Your task to perform on an android device: change alarm snooze length Image 0: 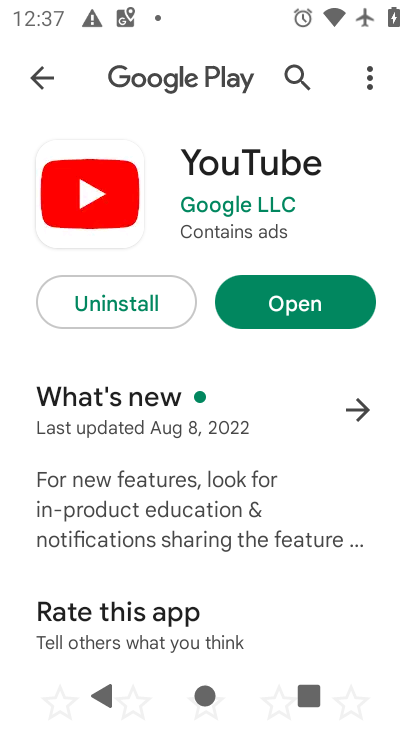
Step 0: press back button
Your task to perform on an android device: change alarm snooze length Image 1: 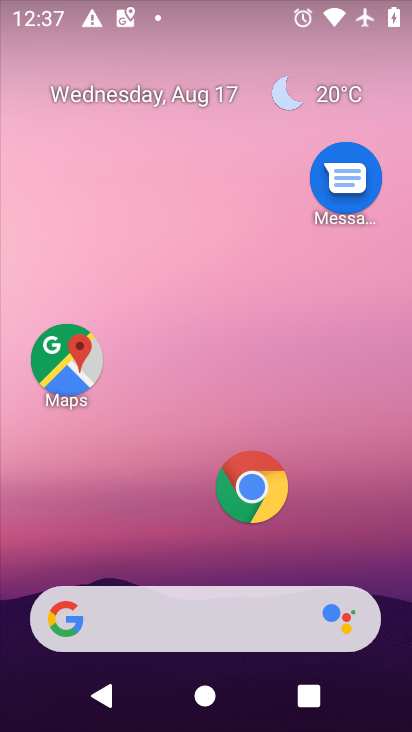
Step 1: drag from (148, 525) to (270, 24)
Your task to perform on an android device: change alarm snooze length Image 2: 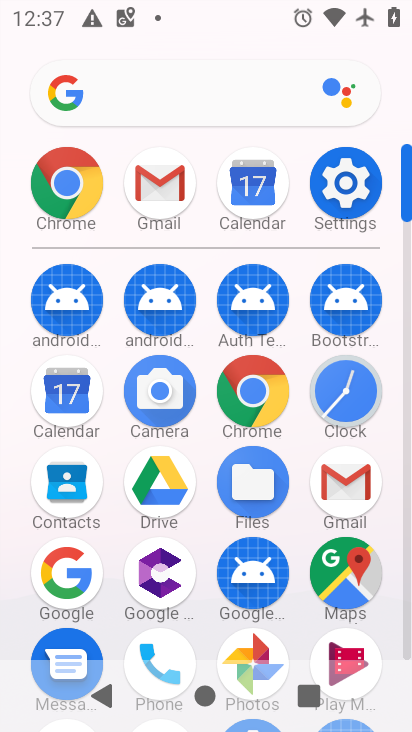
Step 2: click (344, 413)
Your task to perform on an android device: change alarm snooze length Image 3: 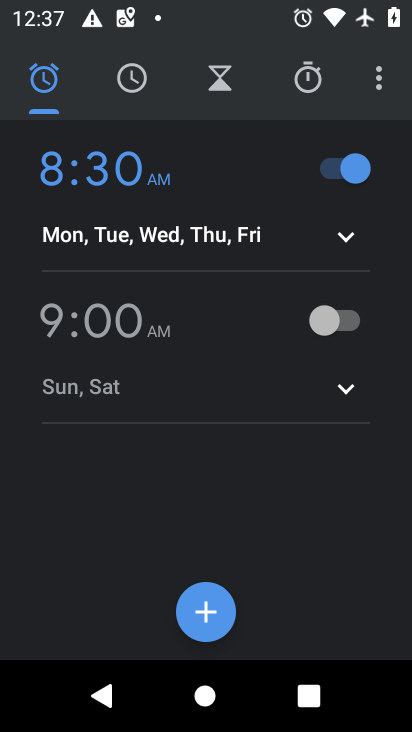
Step 3: click (371, 92)
Your task to perform on an android device: change alarm snooze length Image 4: 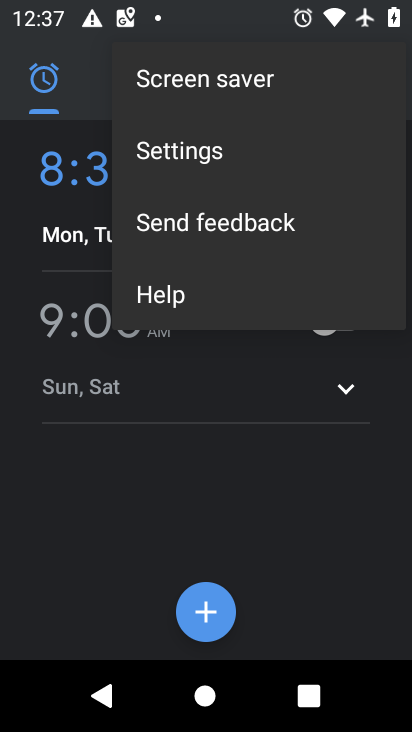
Step 4: click (199, 181)
Your task to perform on an android device: change alarm snooze length Image 5: 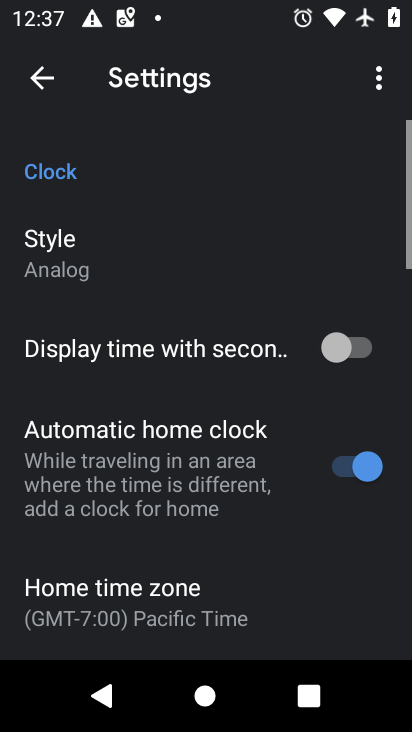
Step 5: drag from (189, 631) to (238, 57)
Your task to perform on an android device: change alarm snooze length Image 6: 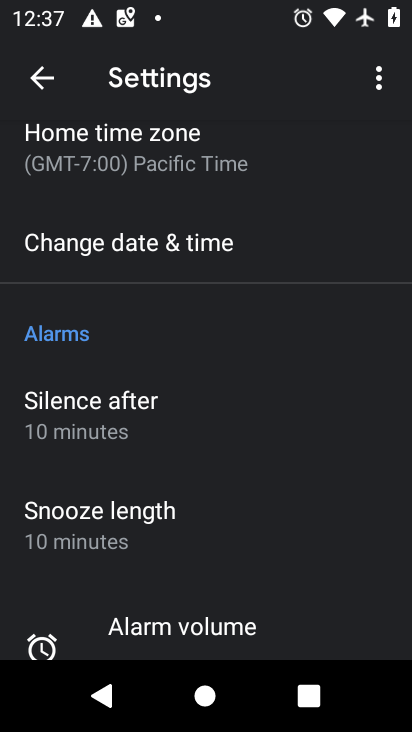
Step 6: click (153, 509)
Your task to perform on an android device: change alarm snooze length Image 7: 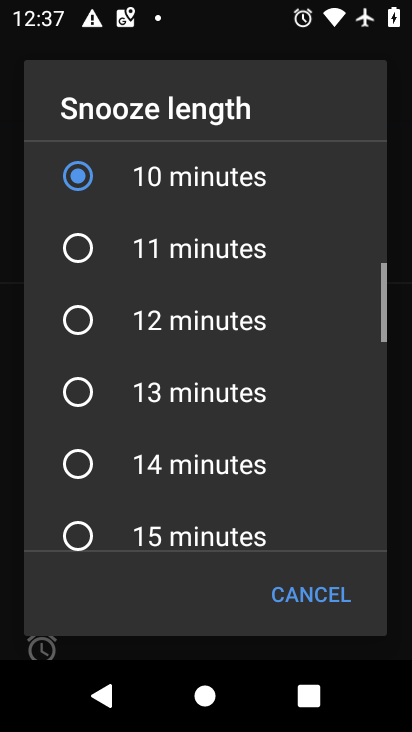
Step 7: click (75, 246)
Your task to perform on an android device: change alarm snooze length Image 8: 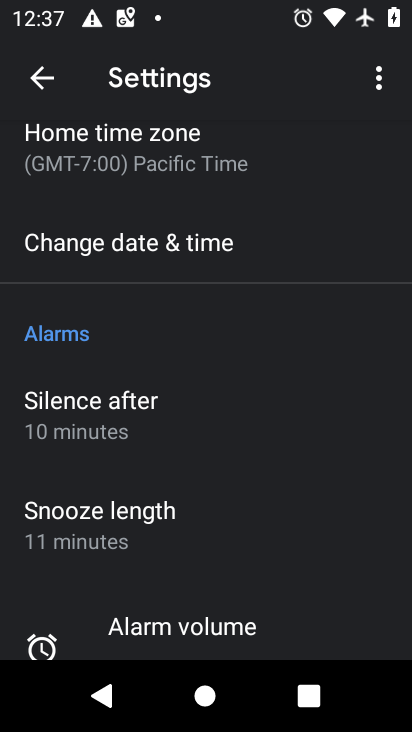
Step 8: task complete